Your task to perform on an android device: Open the web browser Image 0: 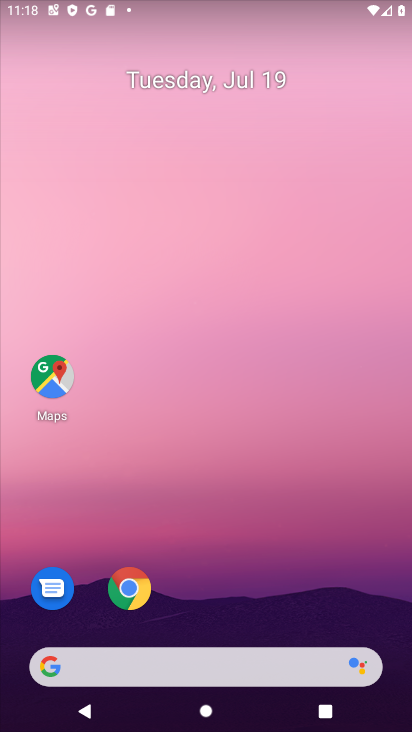
Step 0: drag from (265, 250) to (253, 313)
Your task to perform on an android device: Open the web browser Image 1: 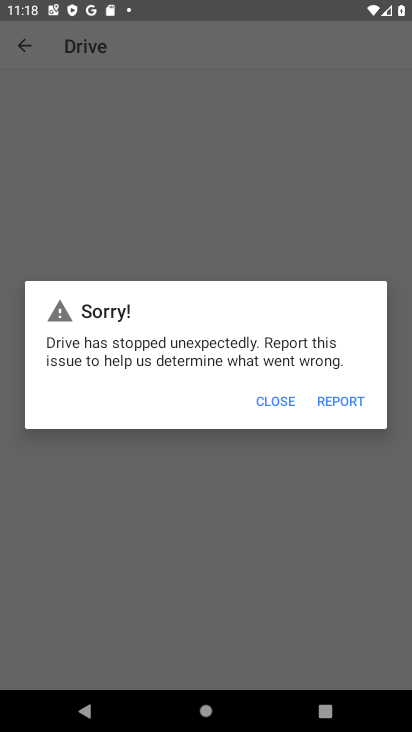
Step 1: press home button
Your task to perform on an android device: Open the web browser Image 2: 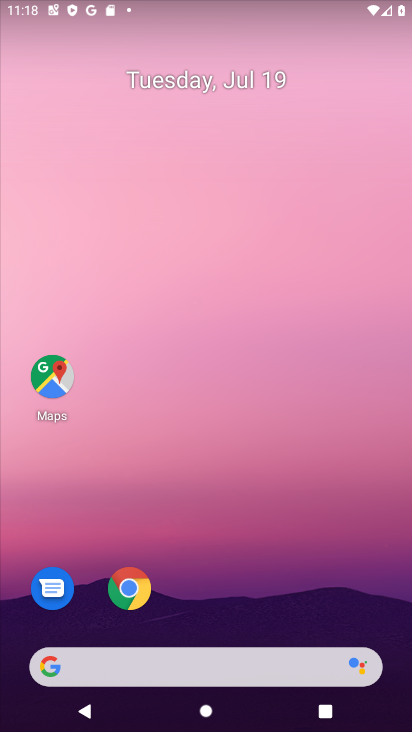
Step 2: click (141, 599)
Your task to perform on an android device: Open the web browser Image 3: 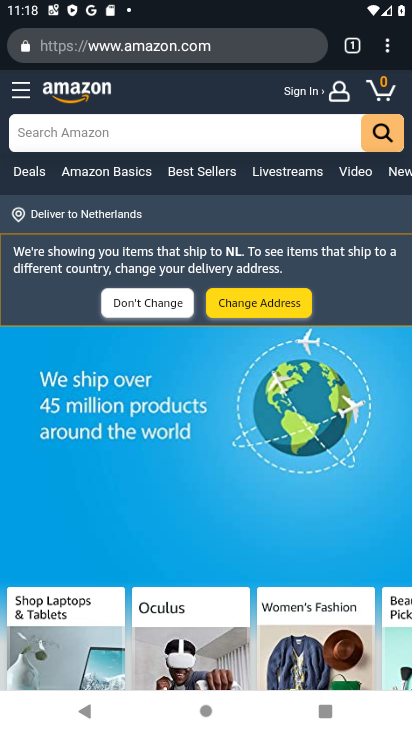
Step 3: task complete